Your task to perform on an android device: Go to Android settings Image 0: 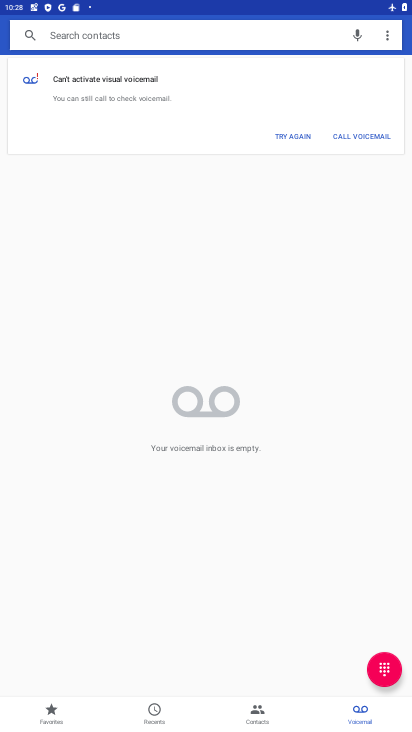
Step 0: press home button
Your task to perform on an android device: Go to Android settings Image 1: 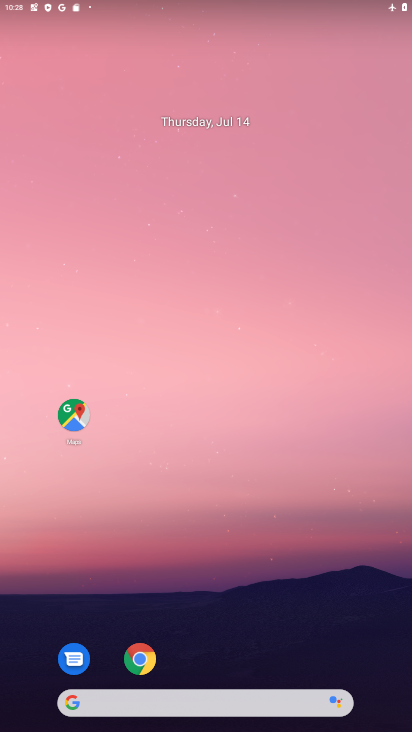
Step 1: drag from (344, 623) to (319, 173)
Your task to perform on an android device: Go to Android settings Image 2: 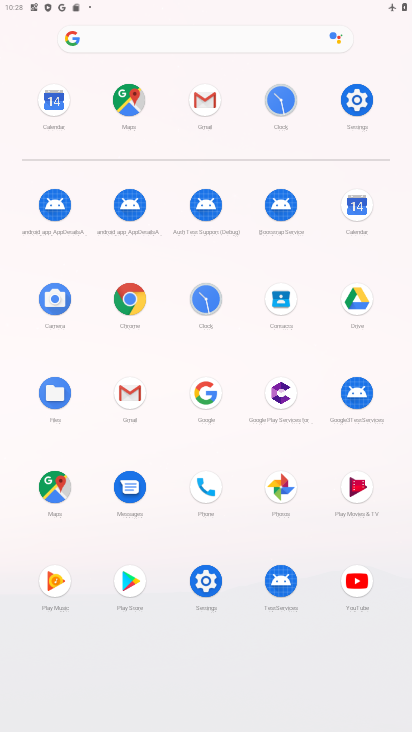
Step 2: click (354, 101)
Your task to perform on an android device: Go to Android settings Image 3: 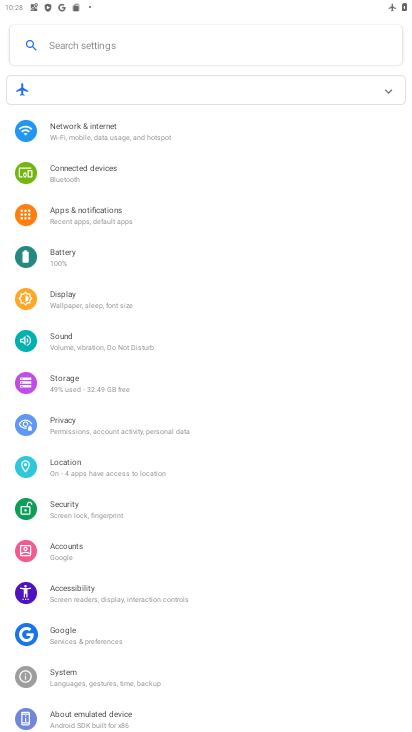
Step 3: task complete